Your task to perform on an android device: Set an alarm for 11am Image 0: 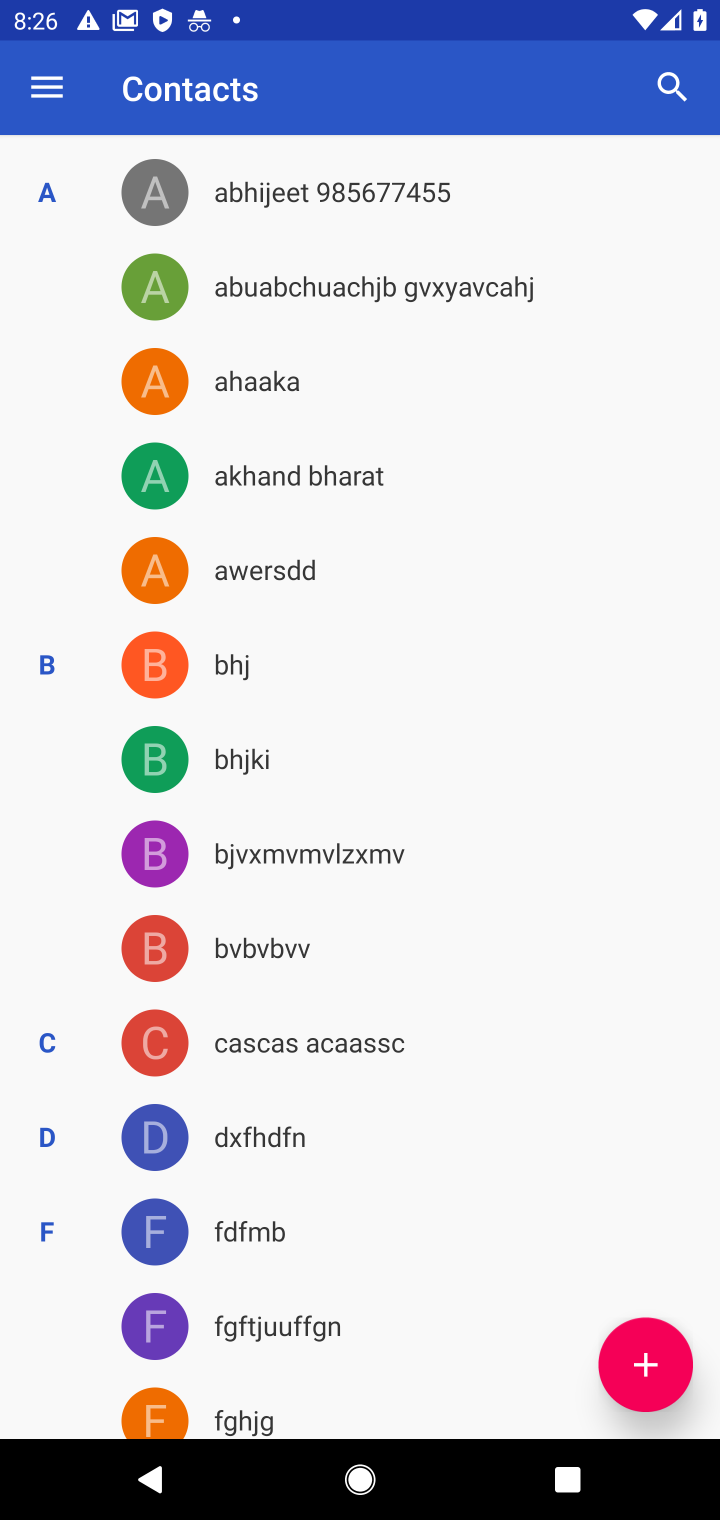
Step 0: press home button
Your task to perform on an android device: Set an alarm for 11am Image 1: 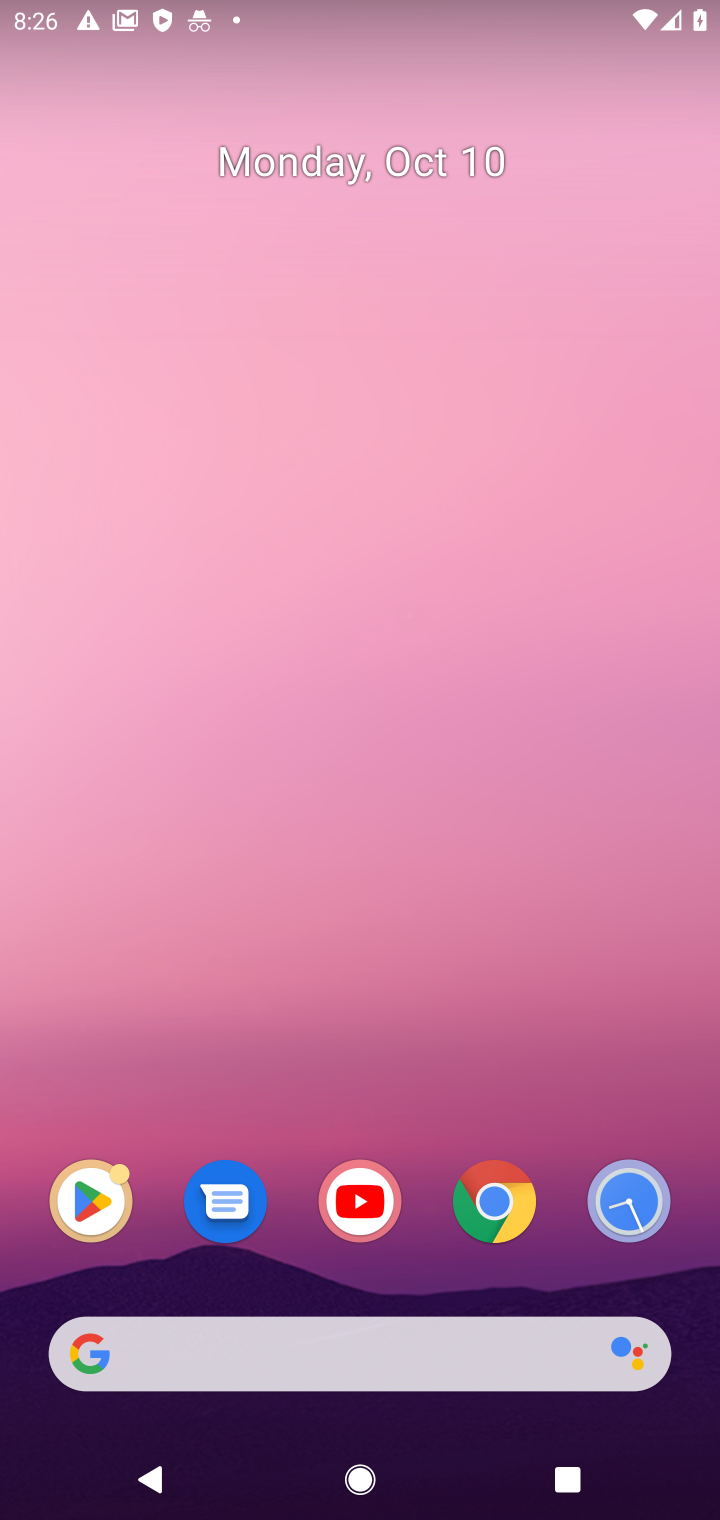
Step 1: drag from (410, 1307) to (578, 21)
Your task to perform on an android device: Set an alarm for 11am Image 2: 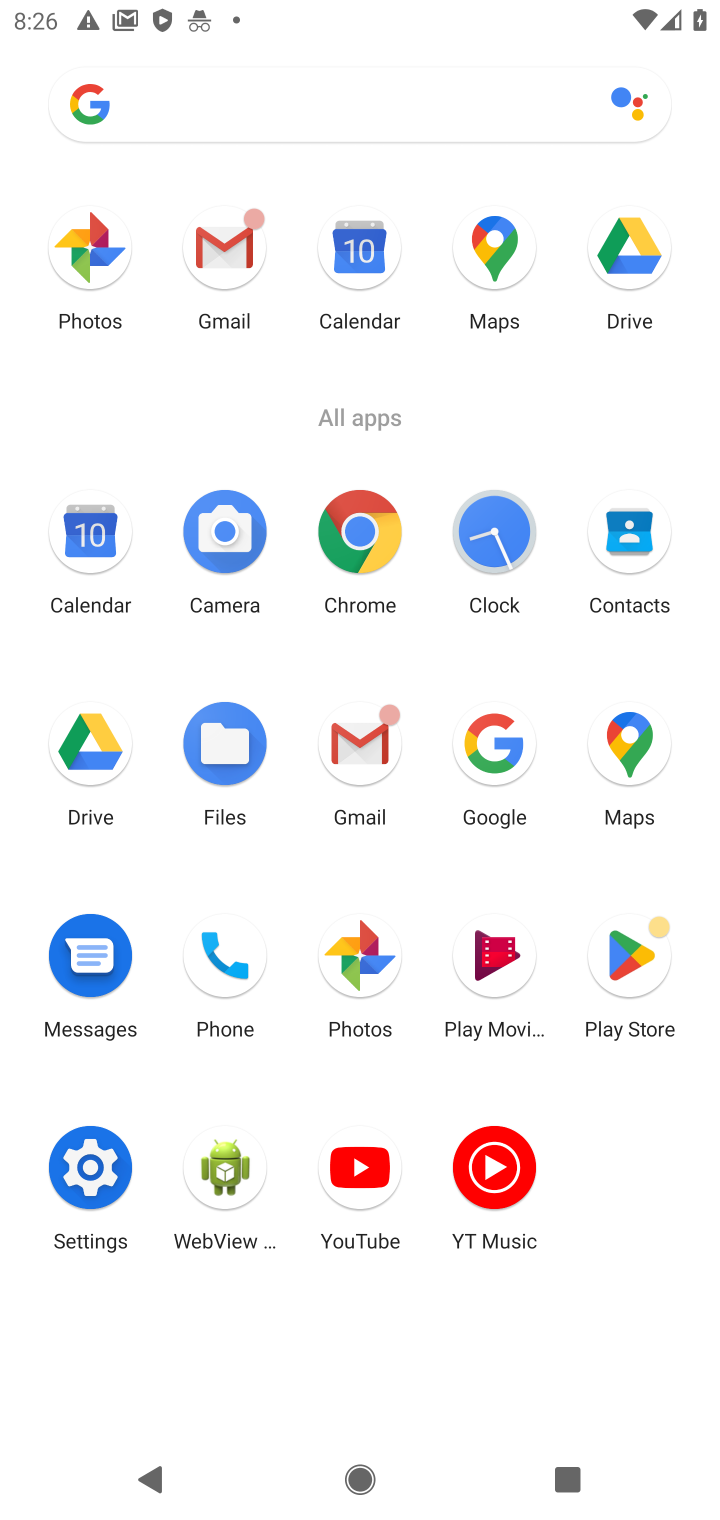
Step 2: click (491, 552)
Your task to perform on an android device: Set an alarm for 11am Image 3: 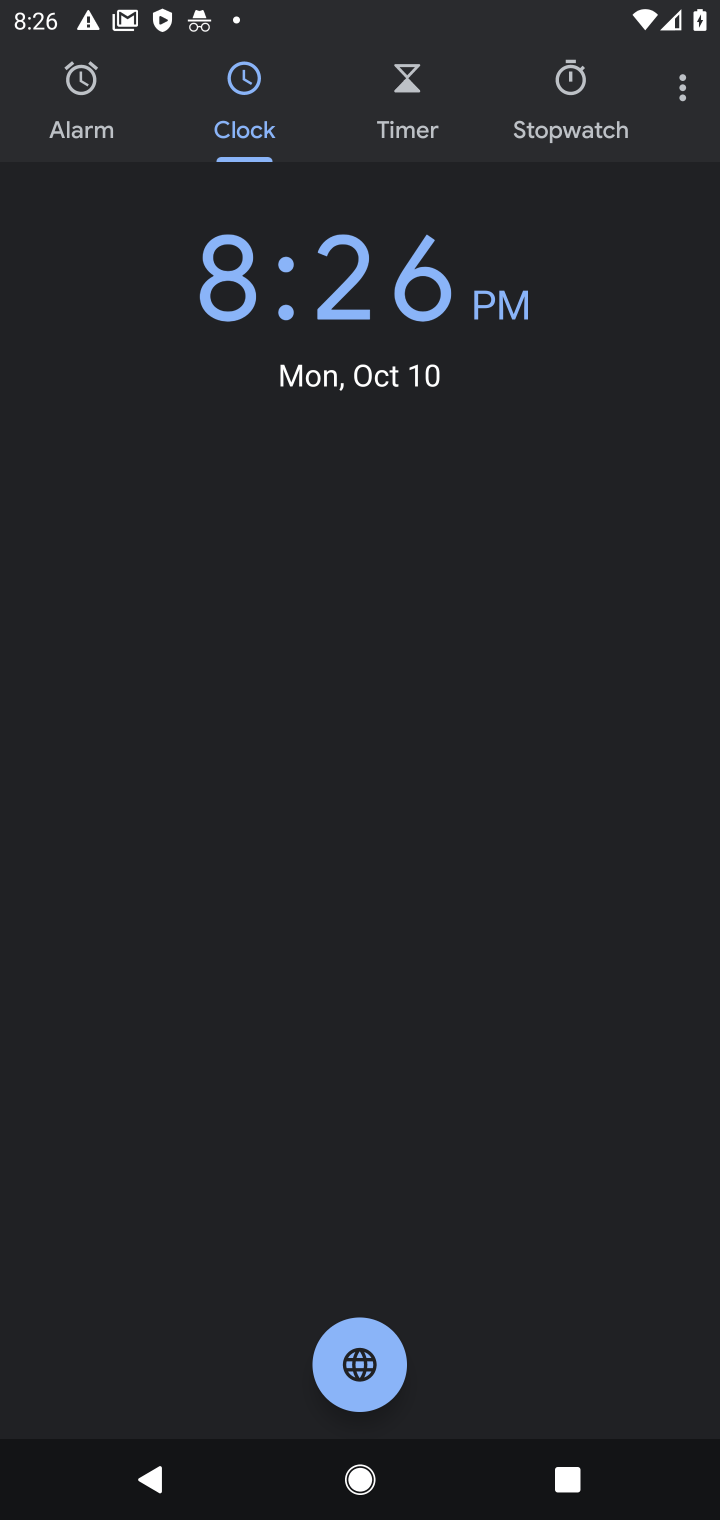
Step 3: click (95, 105)
Your task to perform on an android device: Set an alarm for 11am Image 4: 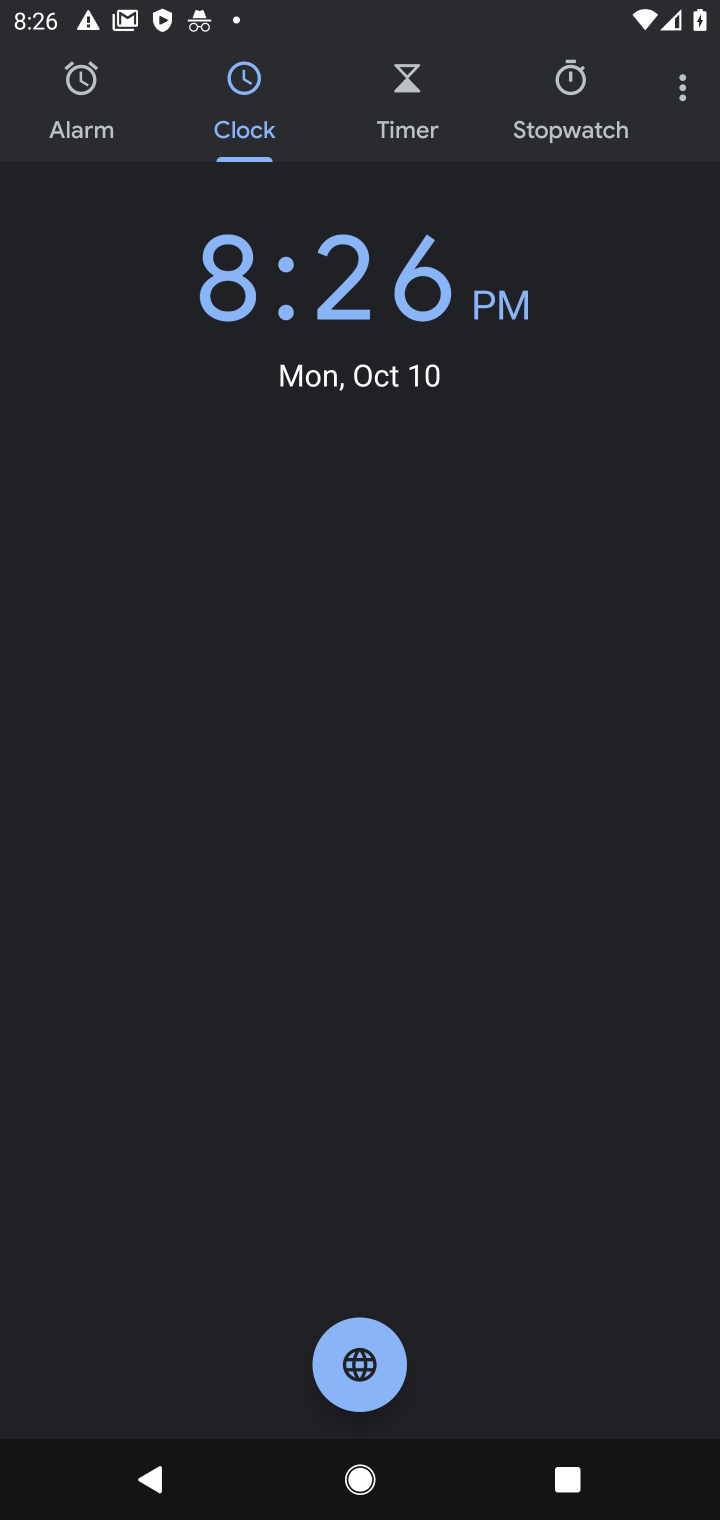
Step 4: click (91, 151)
Your task to perform on an android device: Set an alarm for 11am Image 5: 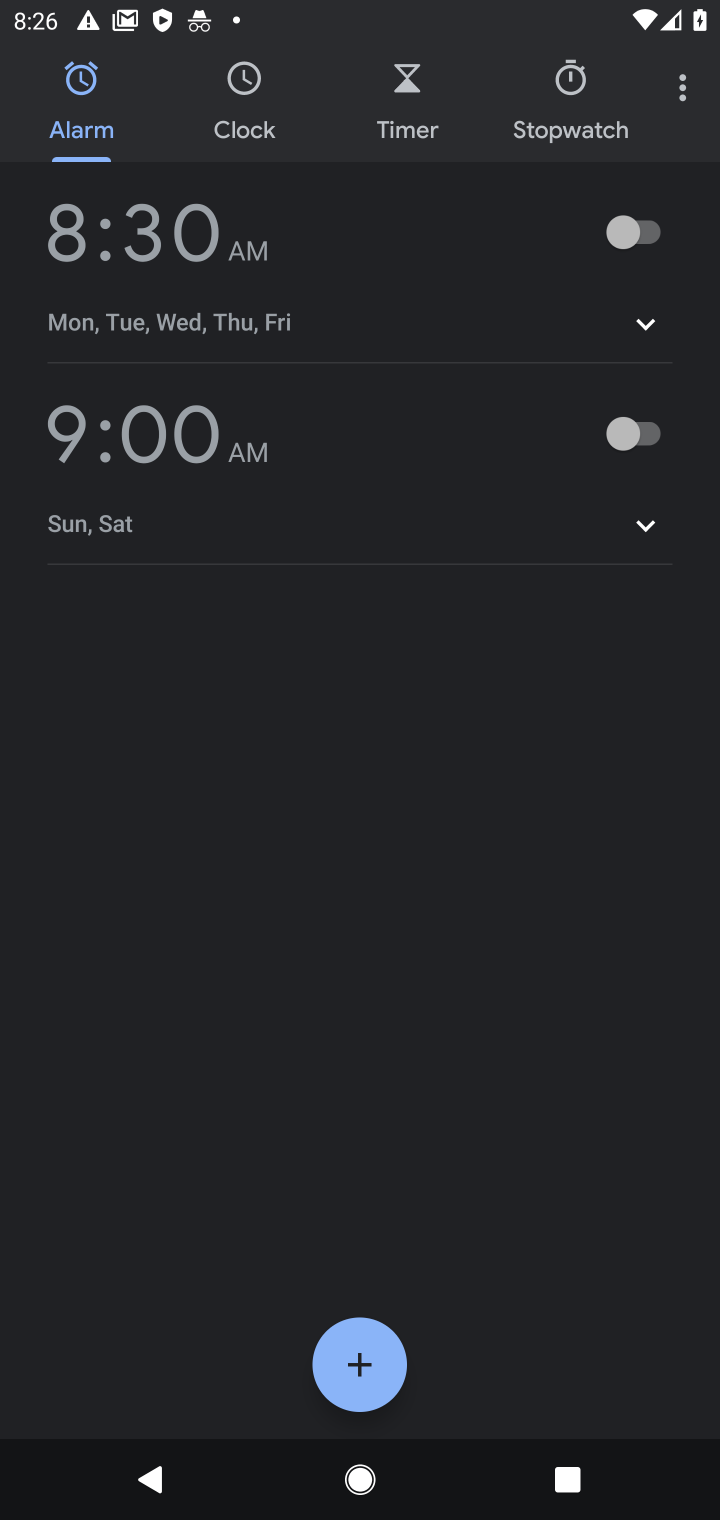
Step 5: click (365, 1345)
Your task to perform on an android device: Set an alarm for 11am Image 6: 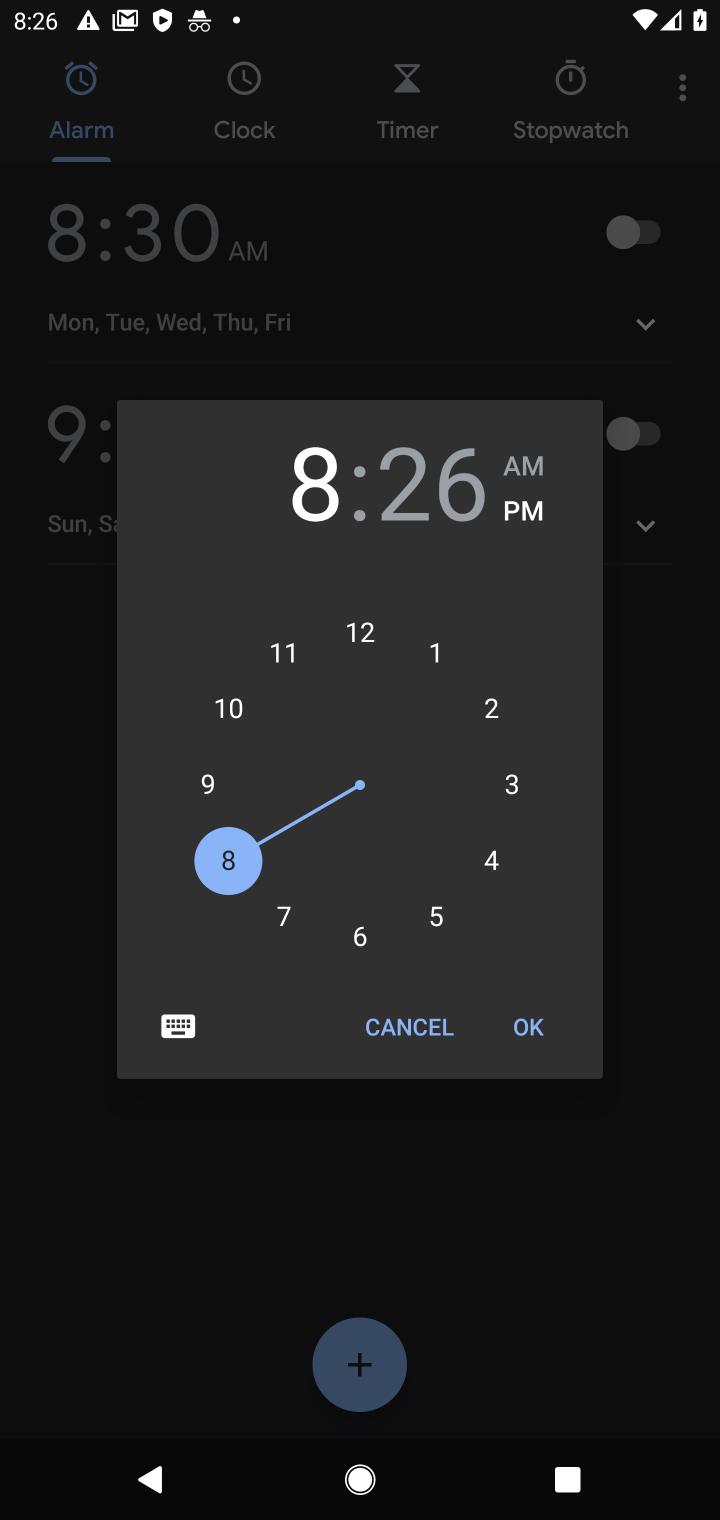
Step 6: click (518, 461)
Your task to perform on an android device: Set an alarm for 11am Image 7: 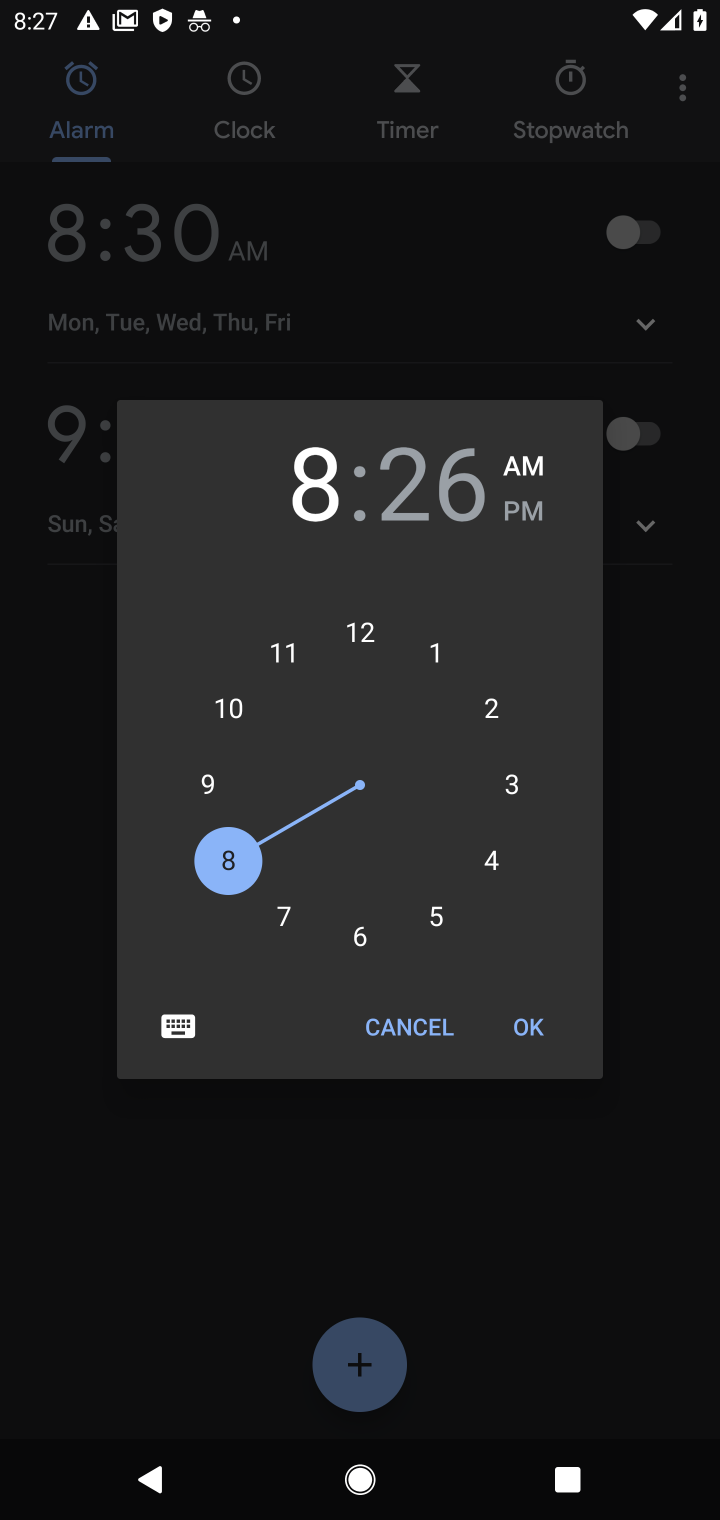
Step 7: click (285, 659)
Your task to perform on an android device: Set an alarm for 11am Image 8: 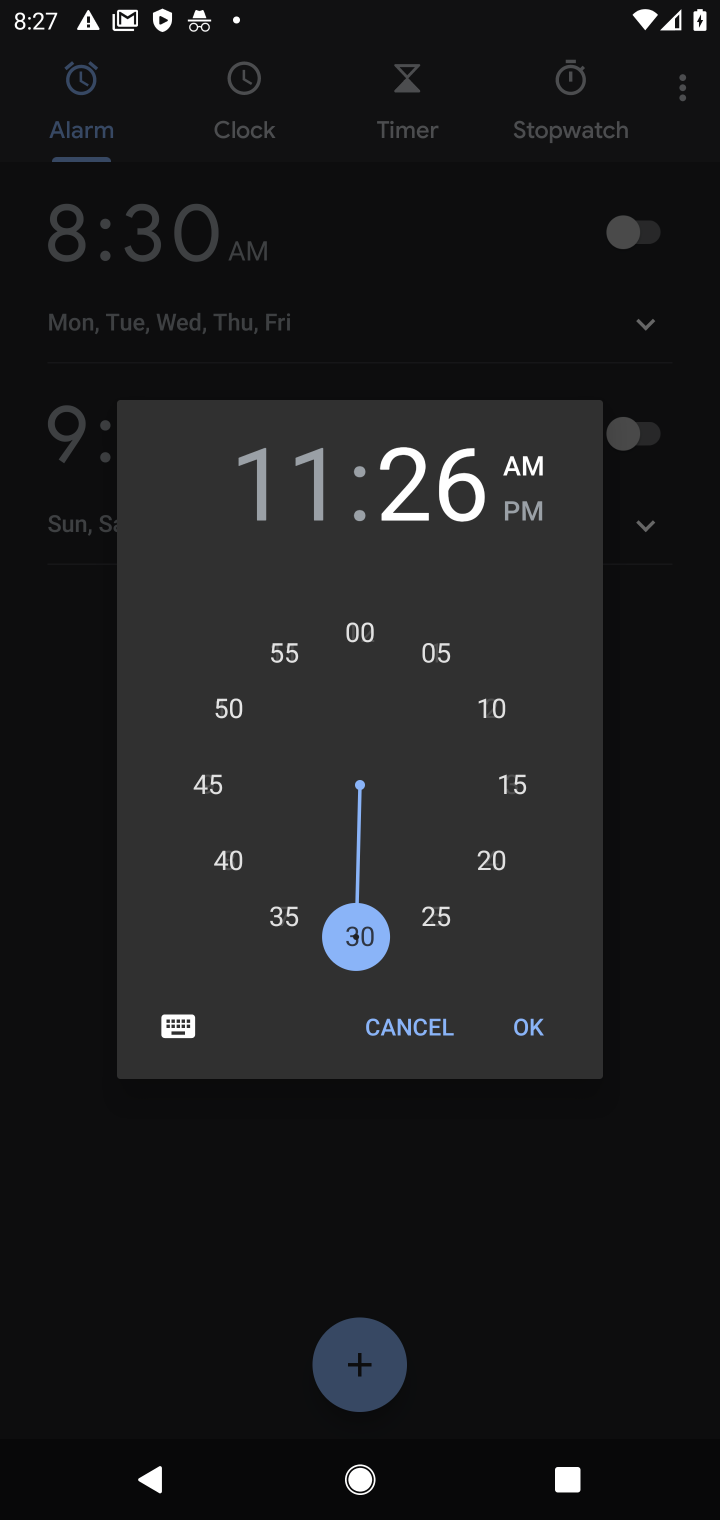
Step 8: click (420, 471)
Your task to perform on an android device: Set an alarm for 11am Image 9: 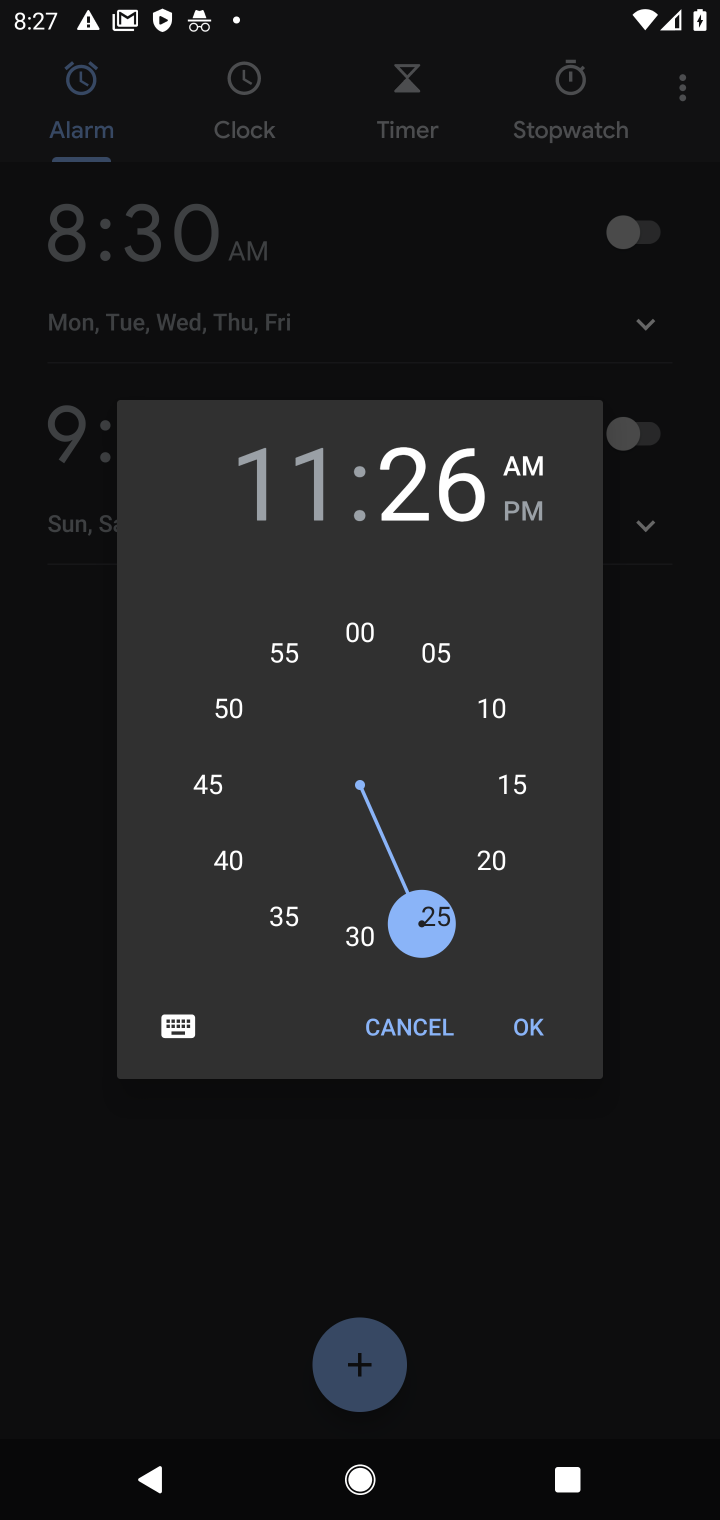
Step 9: click (350, 623)
Your task to perform on an android device: Set an alarm for 11am Image 10: 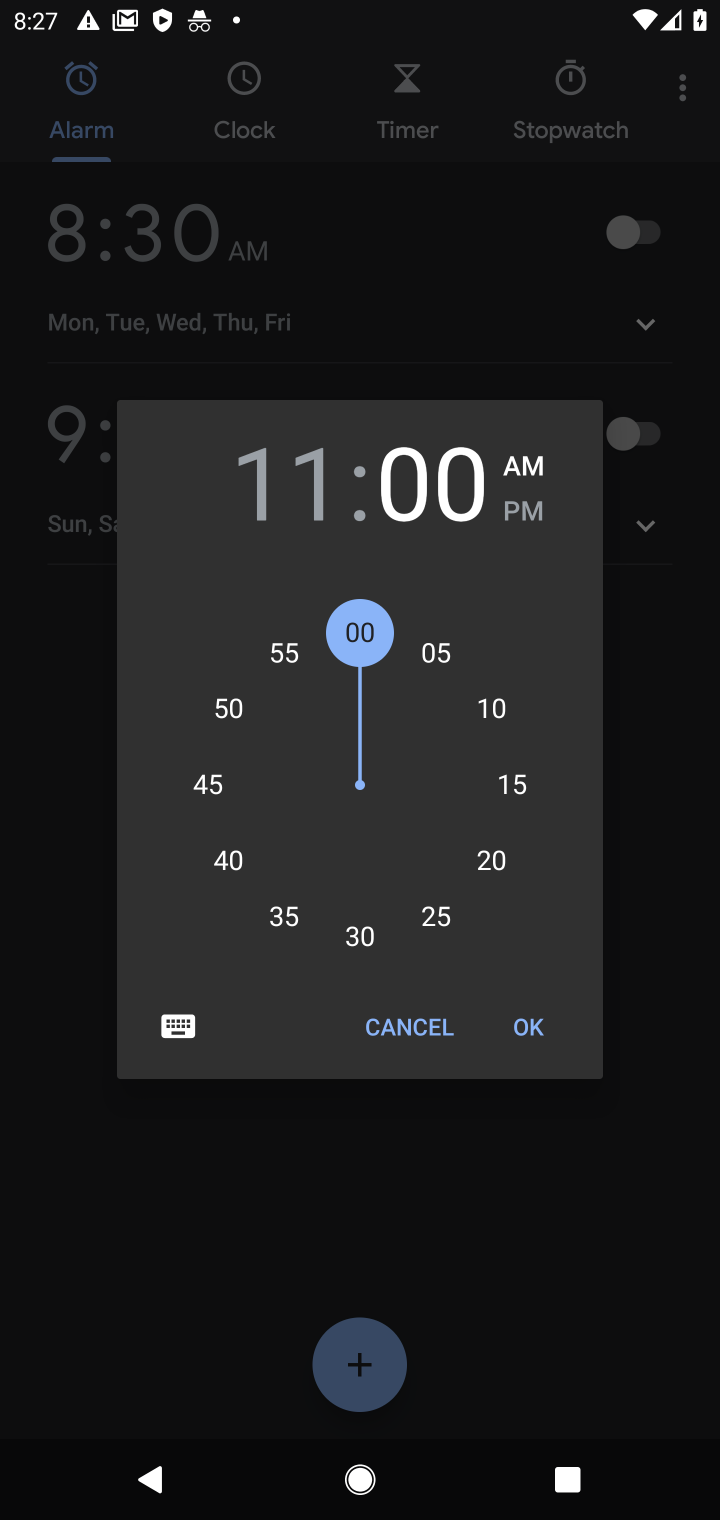
Step 10: click (532, 1013)
Your task to perform on an android device: Set an alarm for 11am Image 11: 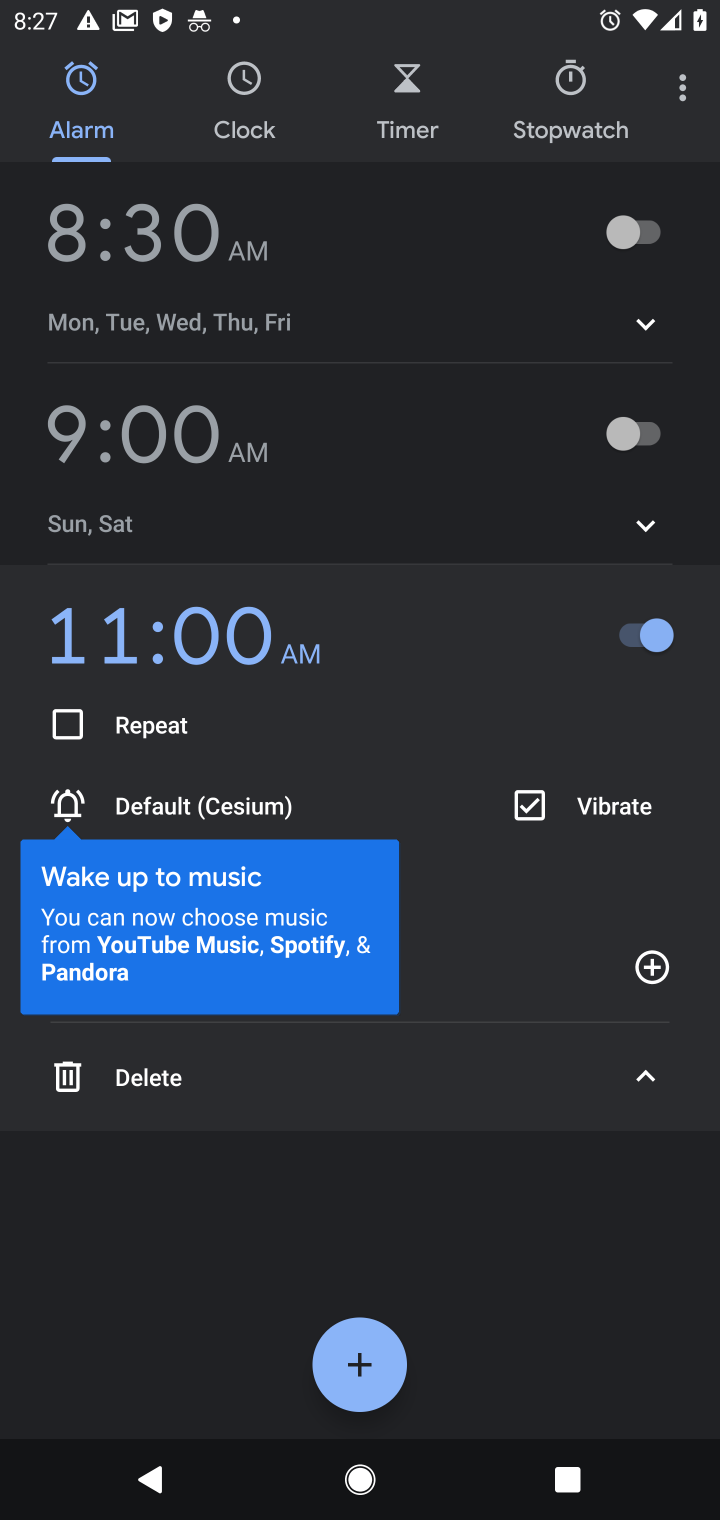
Step 11: click (528, 814)
Your task to perform on an android device: Set an alarm for 11am Image 12: 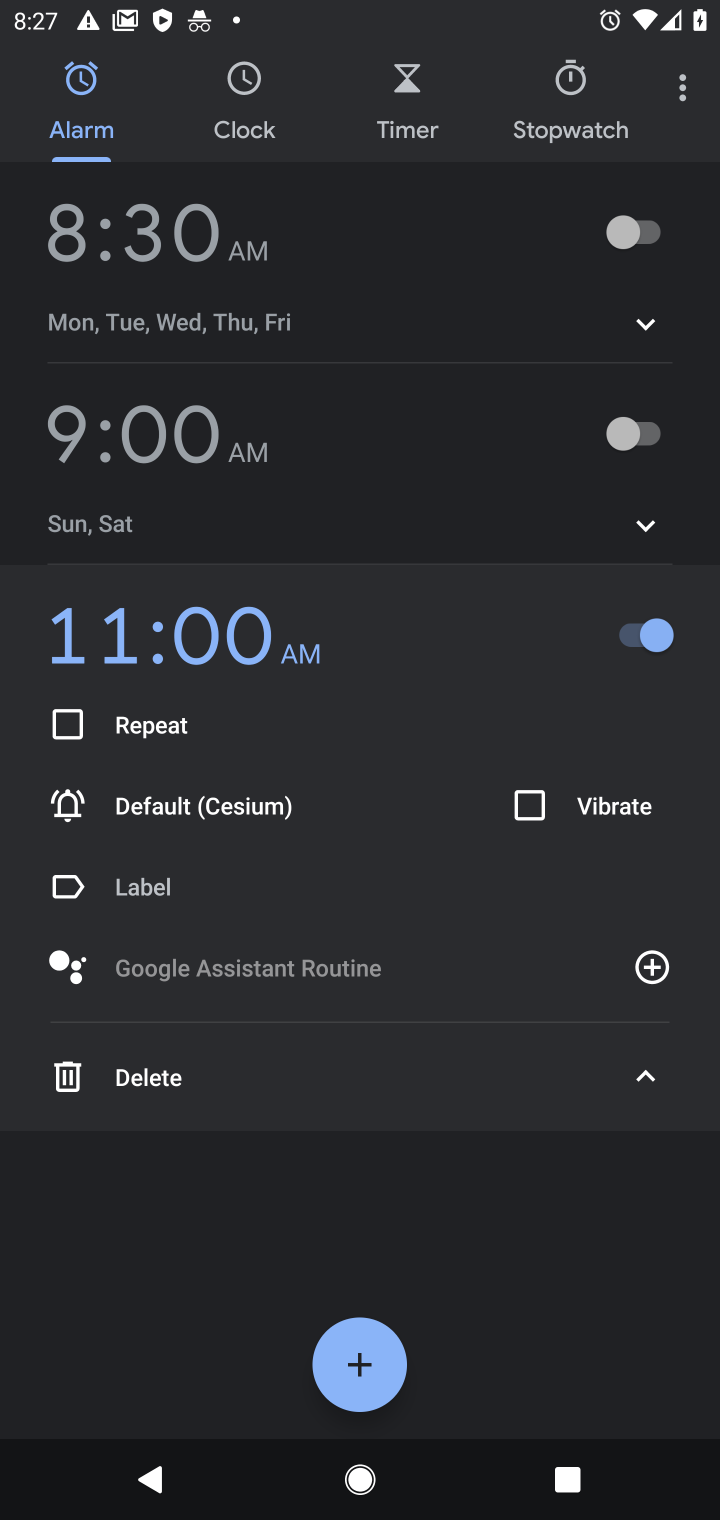
Step 12: click (528, 814)
Your task to perform on an android device: Set an alarm for 11am Image 13: 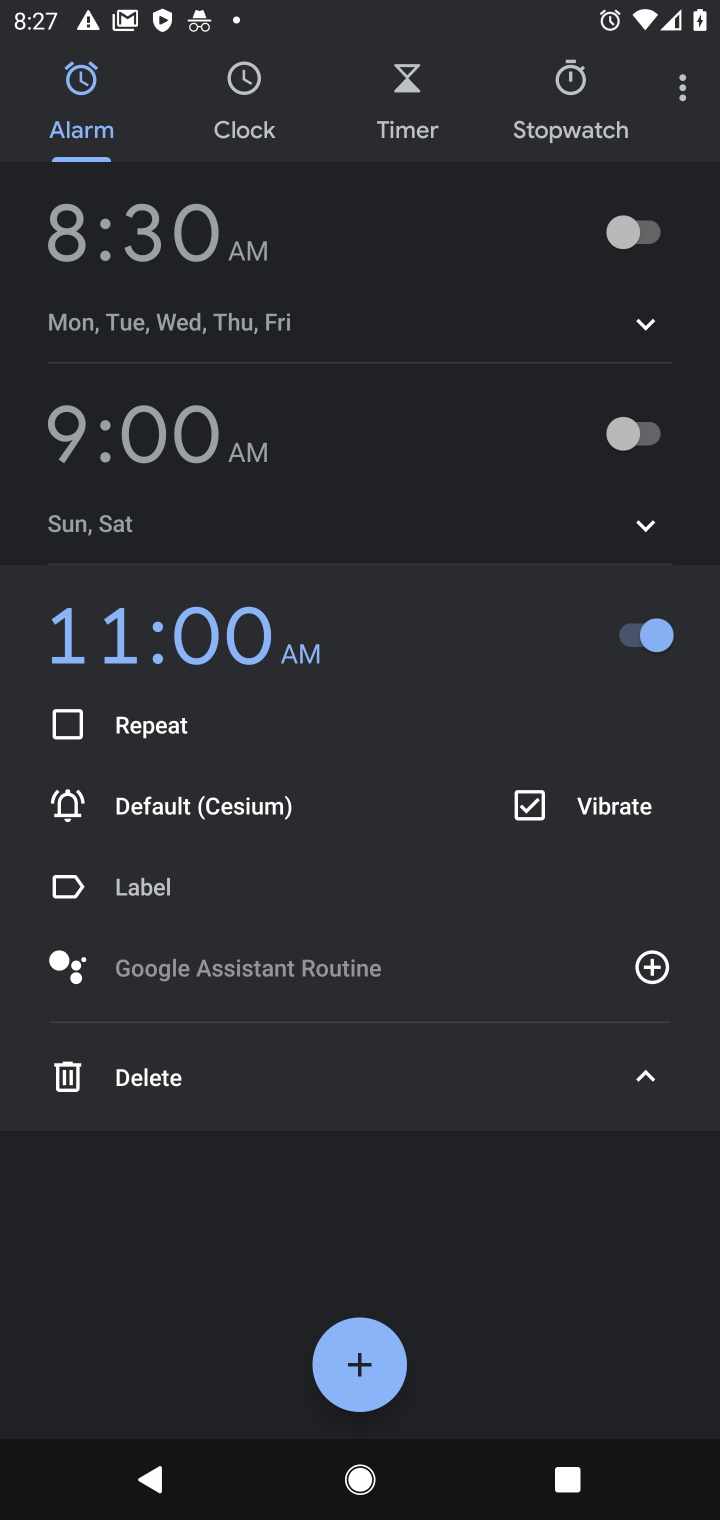
Step 13: click (141, 889)
Your task to perform on an android device: Set an alarm for 11am Image 14: 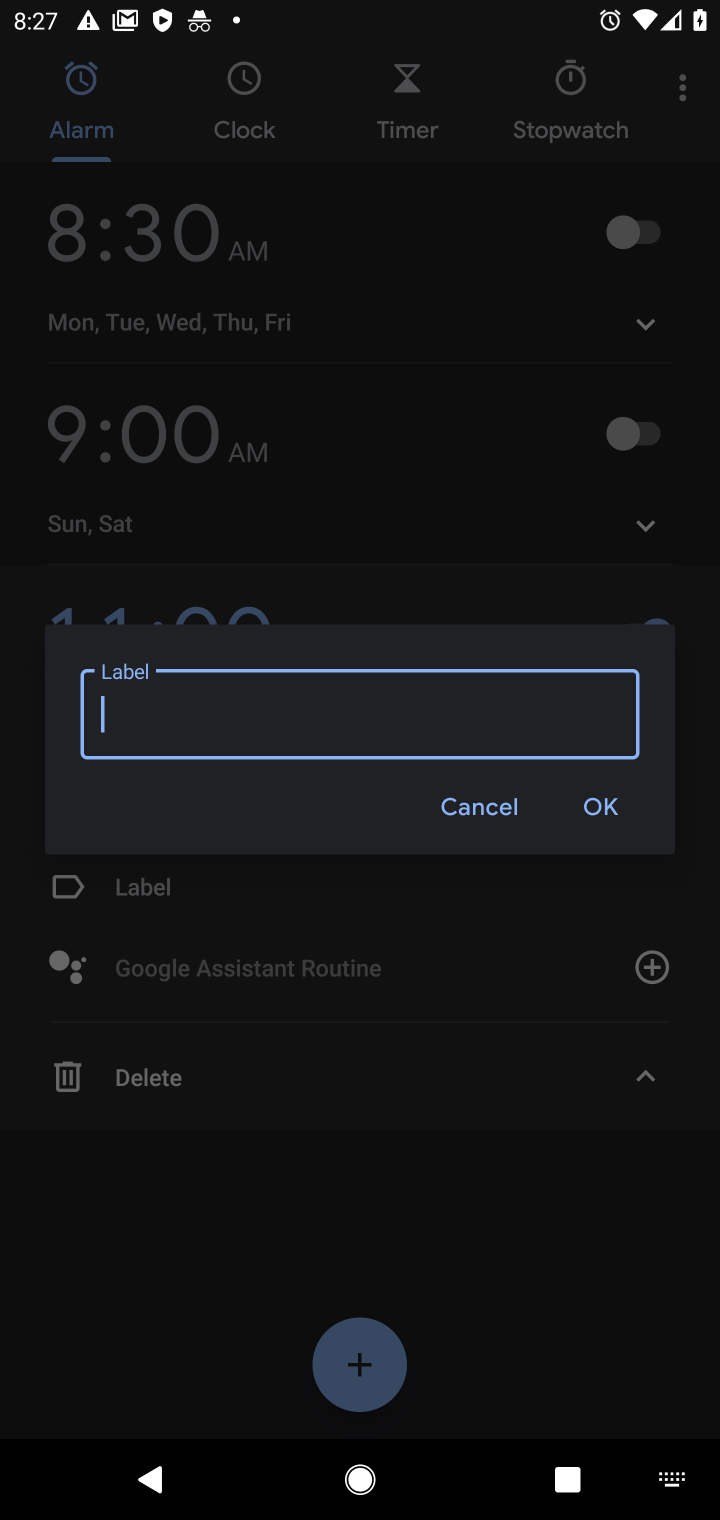
Step 14: type "Meeting"
Your task to perform on an android device: Set an alarm for 11am Image 15: 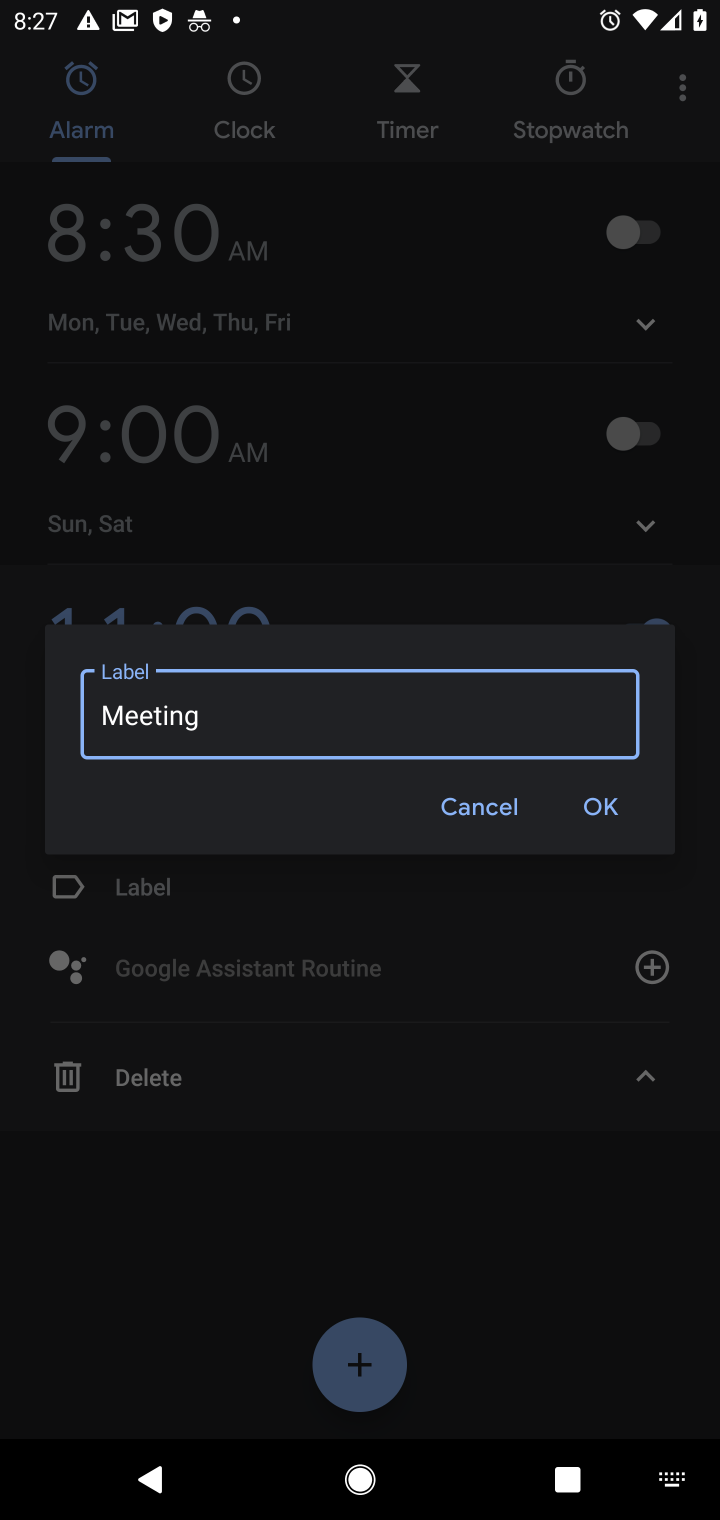
Step 15: click (574, 809)
Your task to perform on an android device: Set an alarm for 11am Image 16: 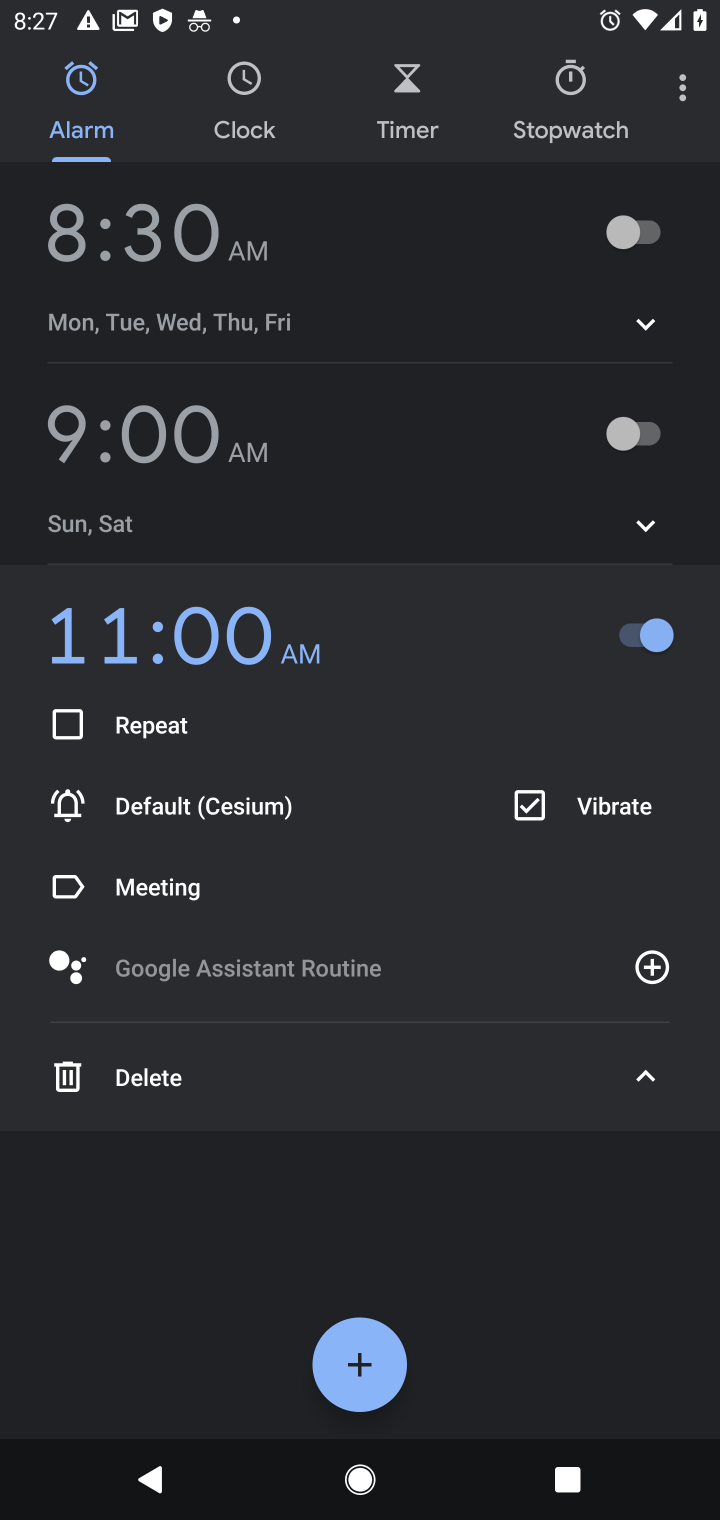
Step 16: click (506, 464)
Your task to perform on an android device: Set an alarm for 11am Image 17: 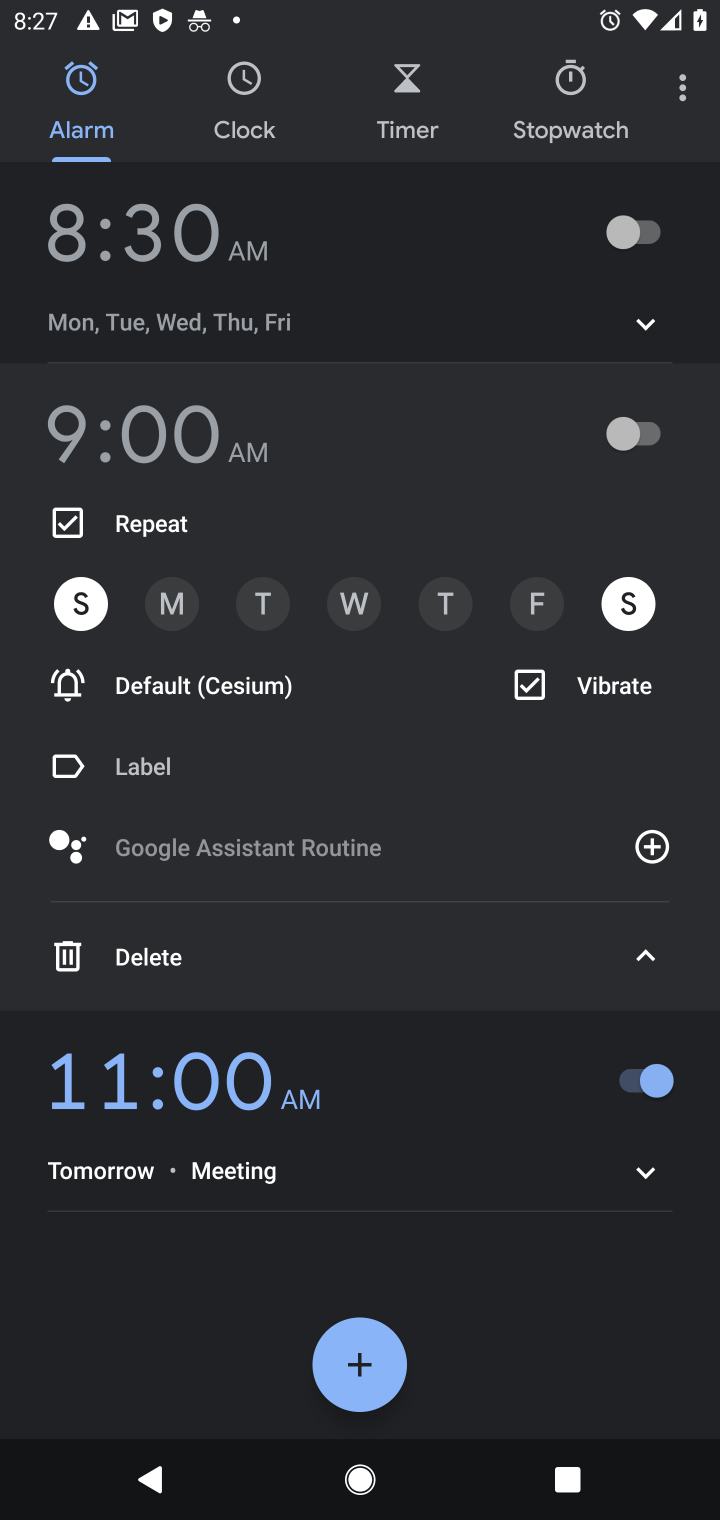
Step 17: click (277, 123)
Your task to perform on an android device: Set an alarm for 11am Image 18: 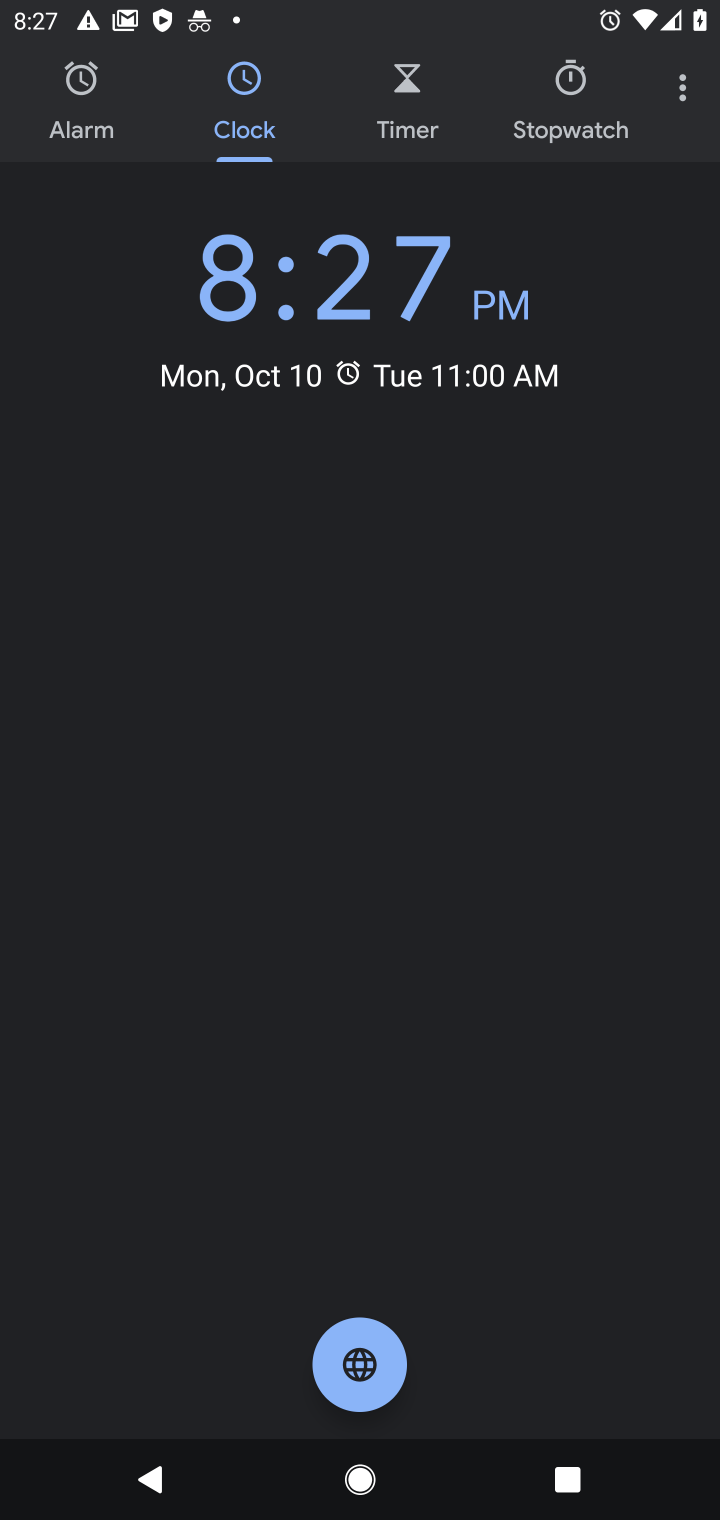
Step 18: click (442, 125)
Your task to perform on an android device: Set an alarm for 11am Image 19: 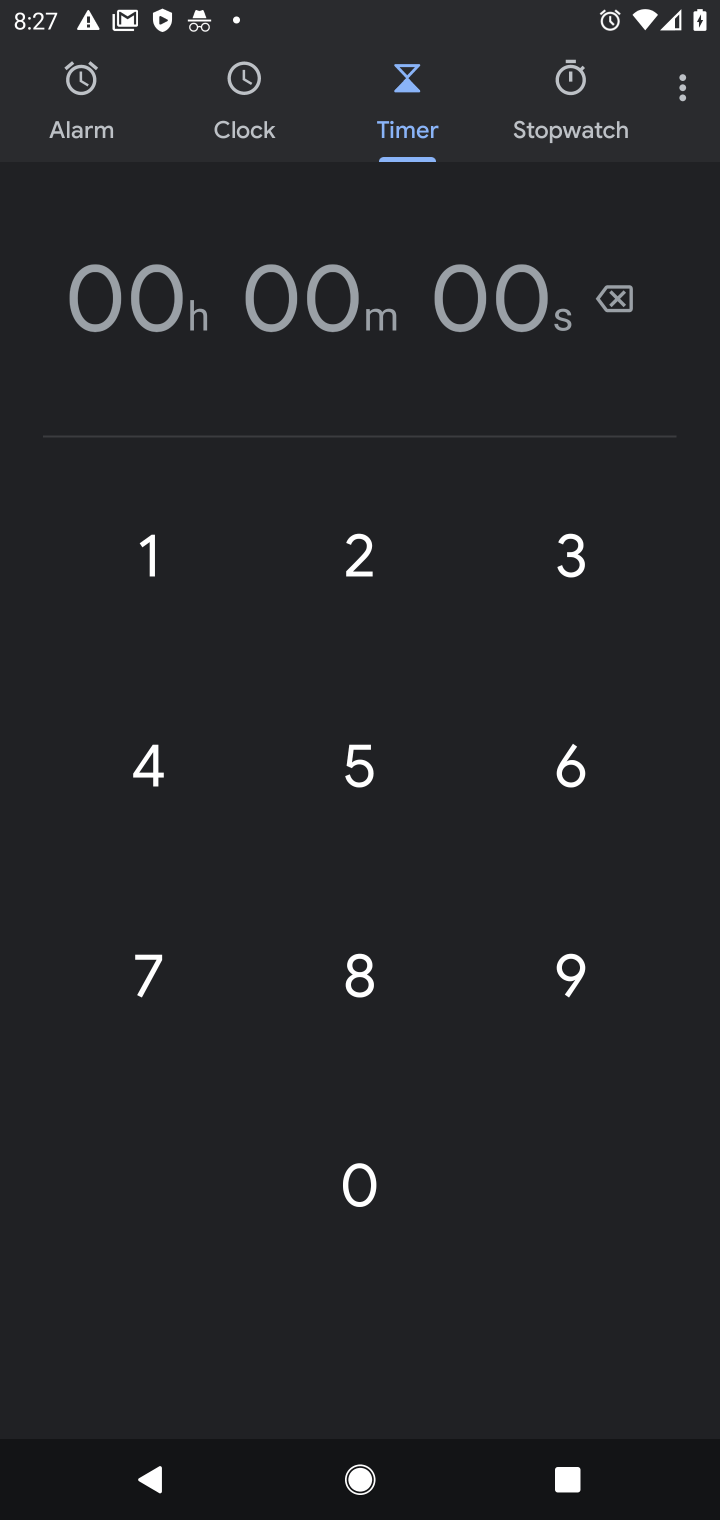
Step 19: click (604, 119)
Your task to perform on an android device: Set an alarm for 11am Image 20: 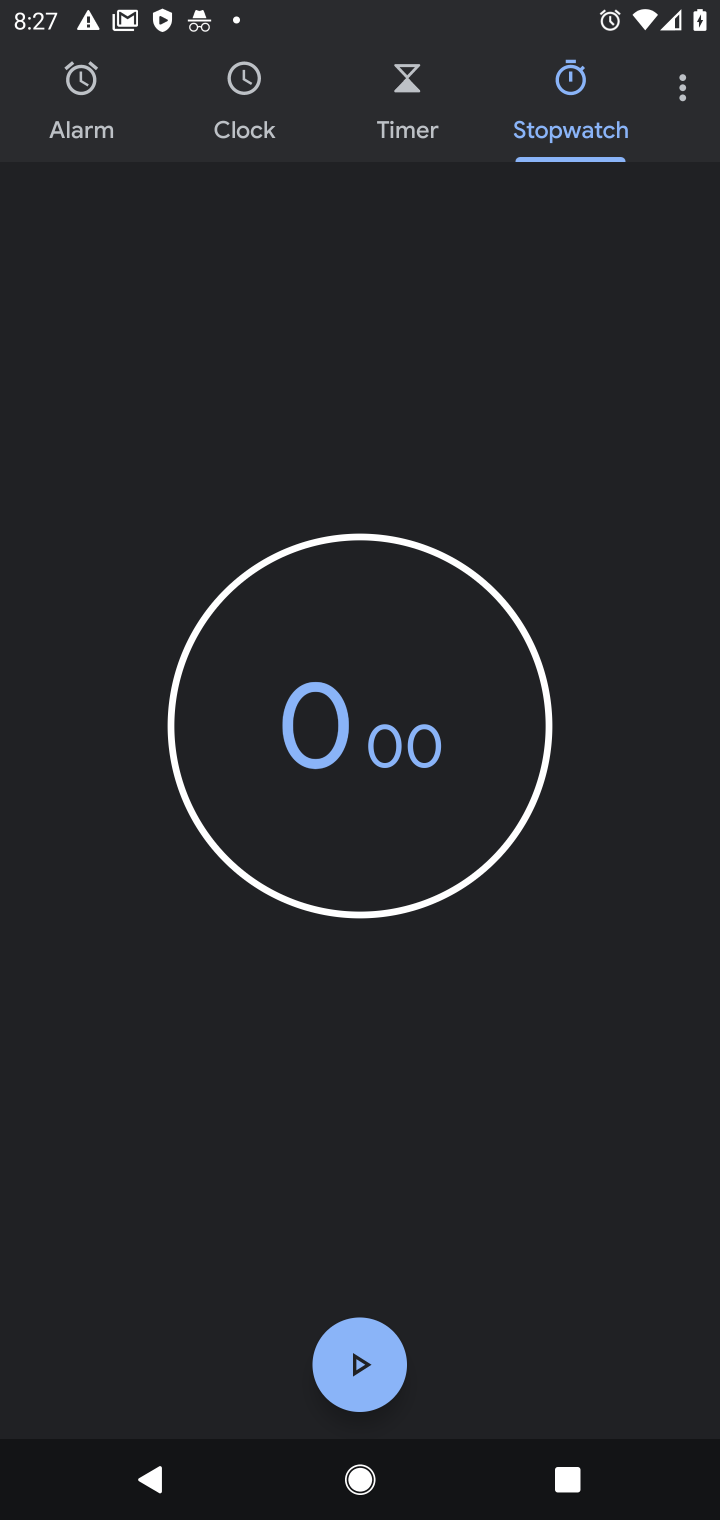
Step 20: click (339, 117)
Your task to perform on an android device: Set an alarm for 11am Image 21: 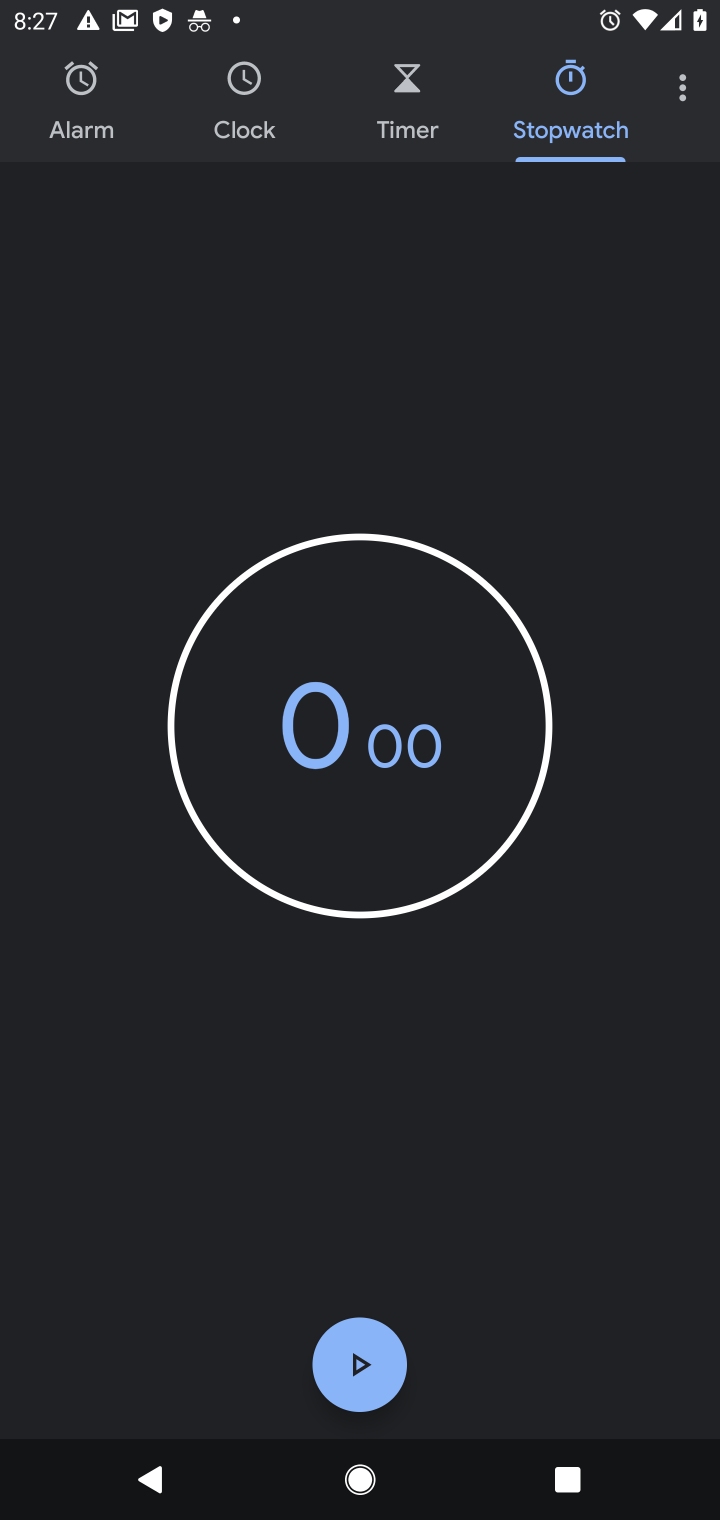
Step 21: click (216, 131)
Your task to perform on an android device: Set an alarm for 11am Image 22: 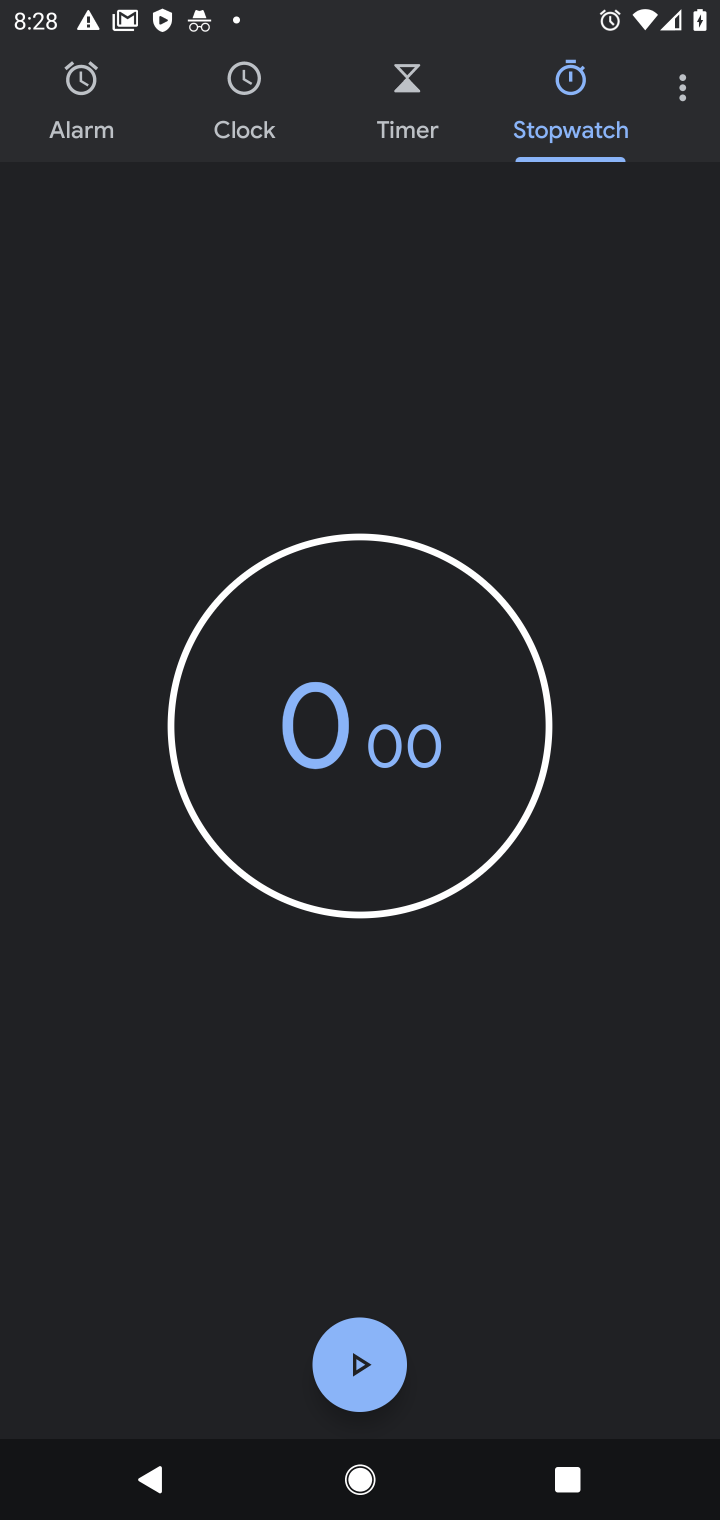
Step 22: click (242, 143)
Your task to perform on an android device: Set an alarm for 11am Image 23: 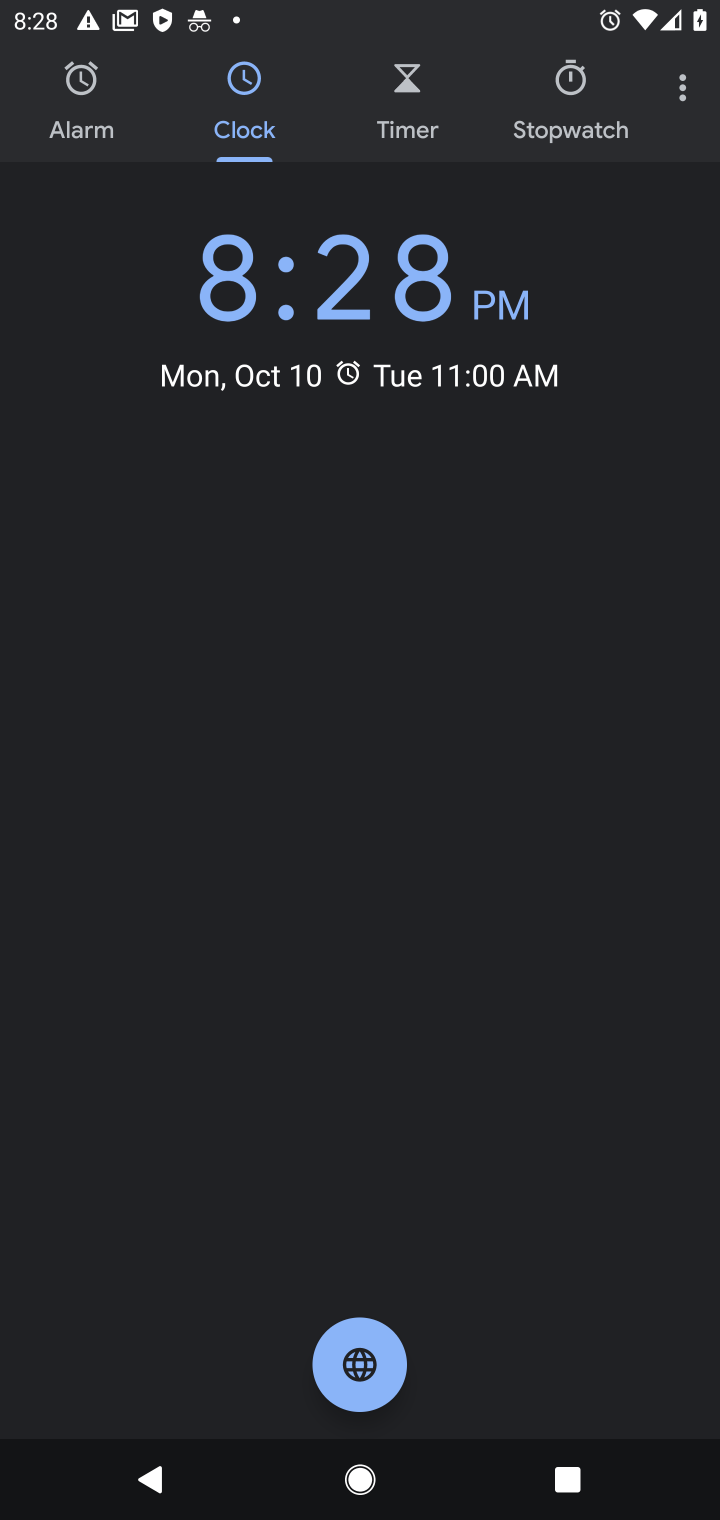
Step 23: click (356, 1358)
Your task to perform on an android device: Set an alarm for 11am Image 24: 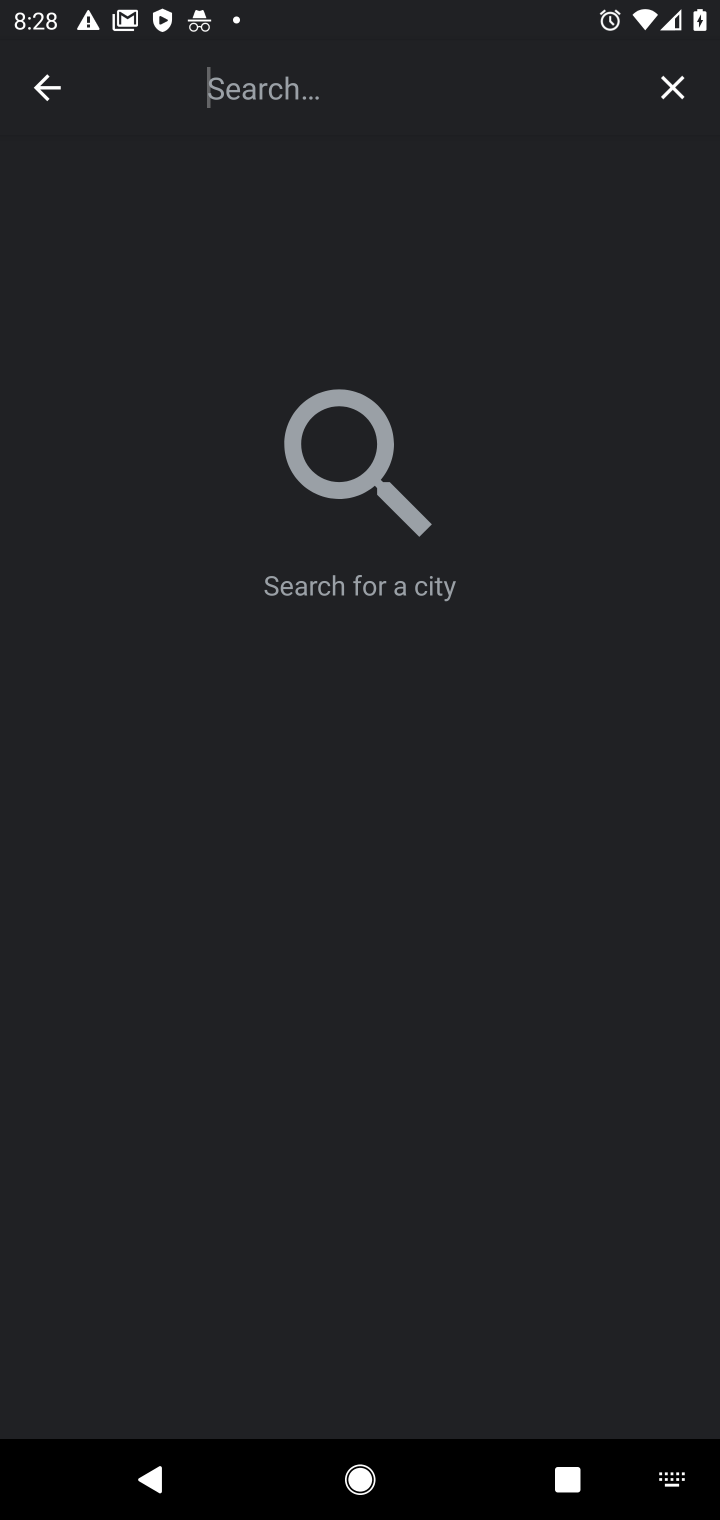
Step 24: type "california"
Your task to perform on an android device: Set an alarm for 11am Image 25: 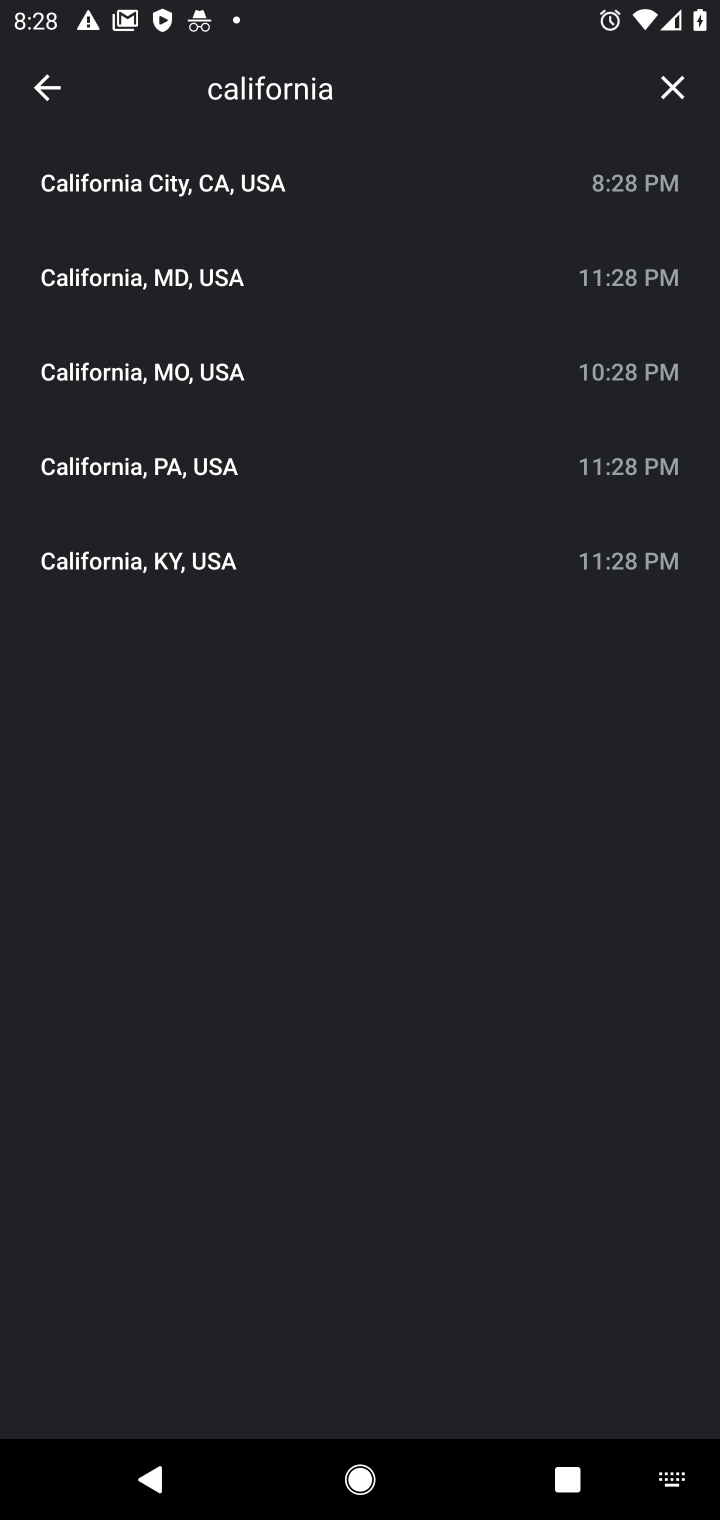
Step 25: click (344, 172)
Your task to perform on an android device: Set an alarm for 11am Image 26: 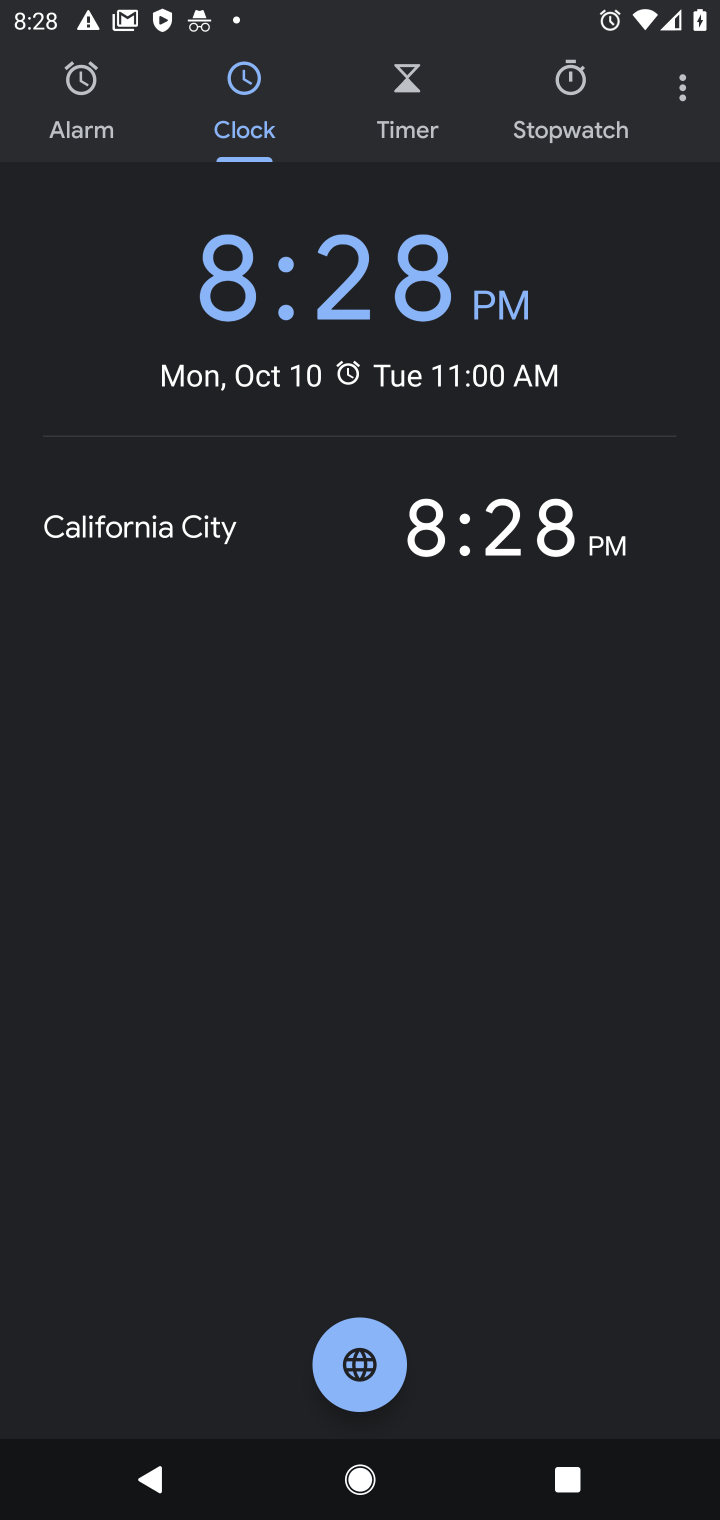
Step 26: click (413, 95)
Your task to perform on an android device: Set an alarm for 11am Image 27: 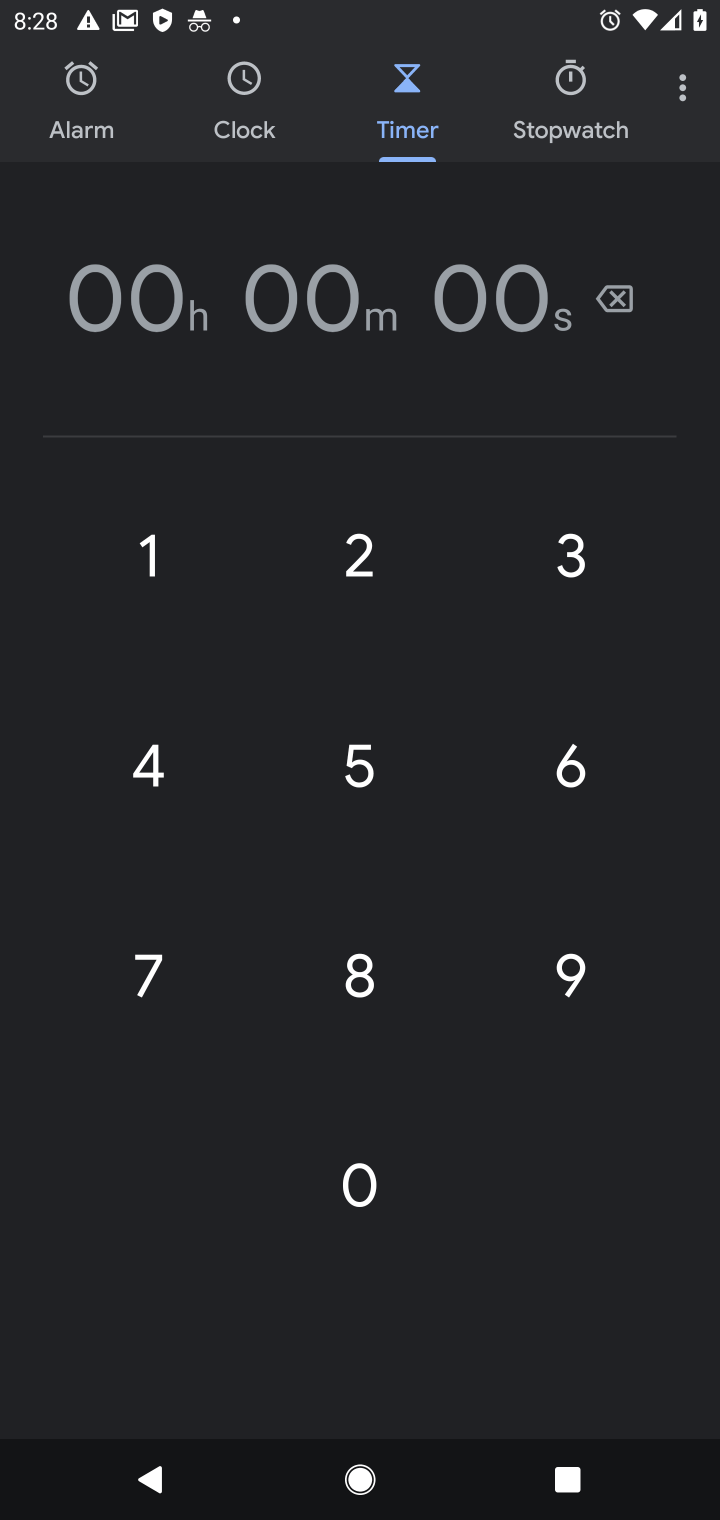
Step 27: click (596, 117)
Your task to perform on an android device: Set an alarm for 11am Image 28: 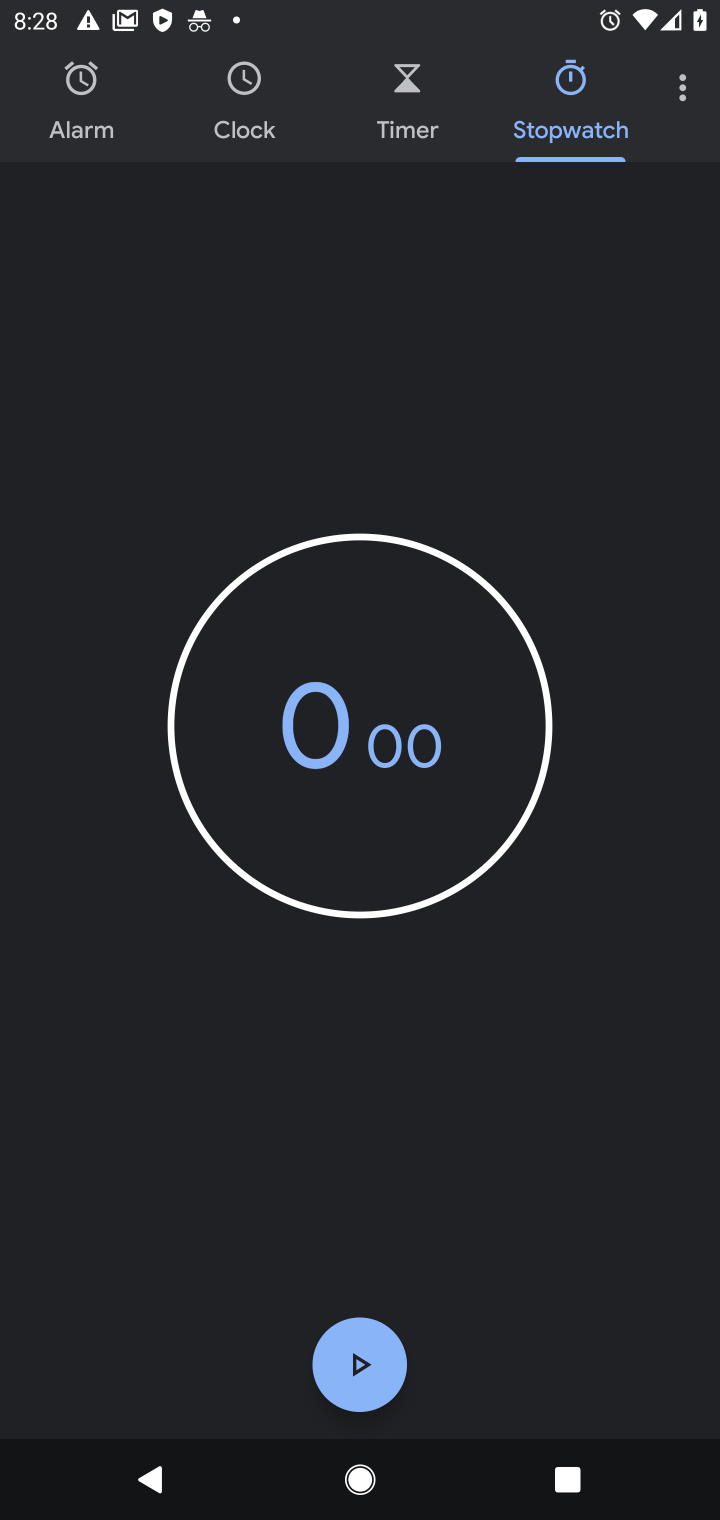
Step 28: click (114, 128)
Your task to perform on an android device: Set an alarm for 11am Image 29: 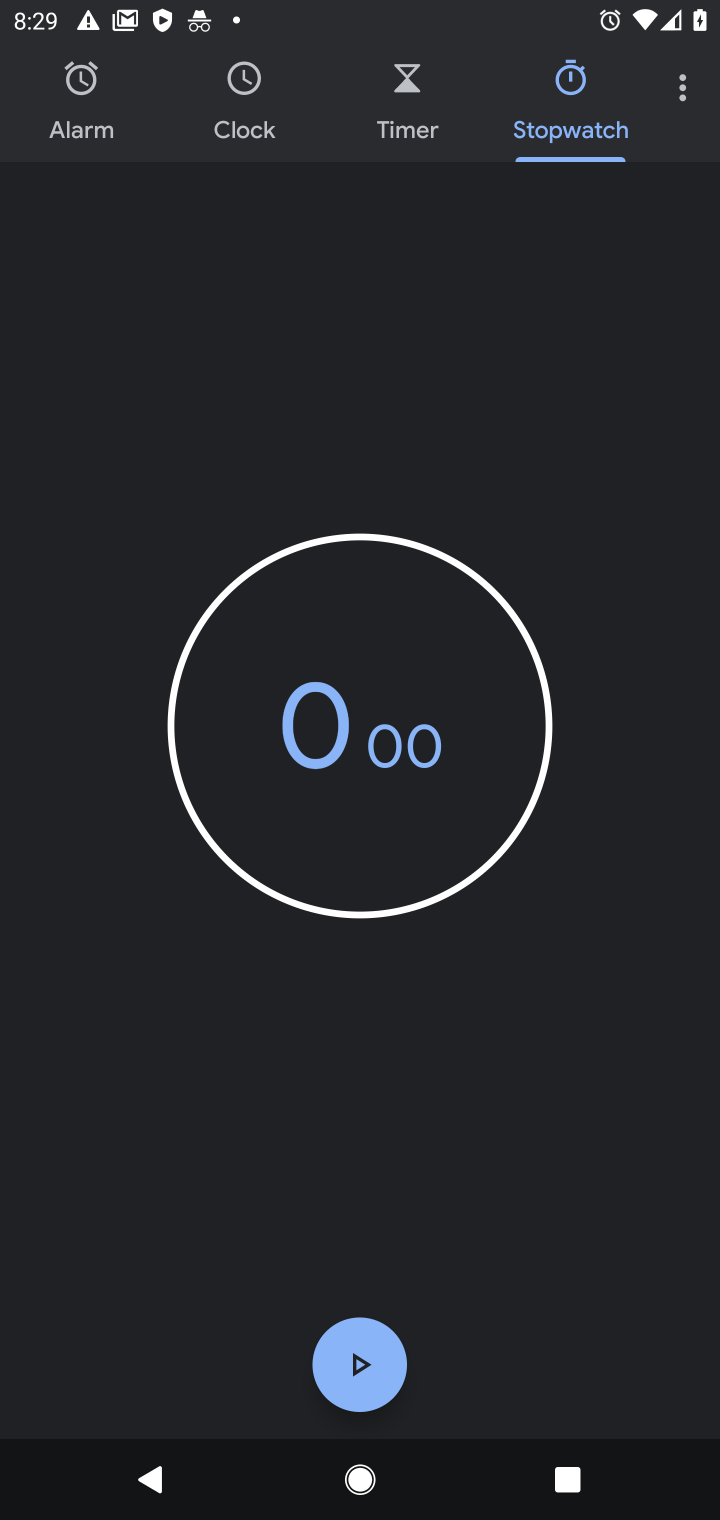
Step 29: click (317, 1236)
Your task to perform on an android device: Set an alarm for 11am Image 30: 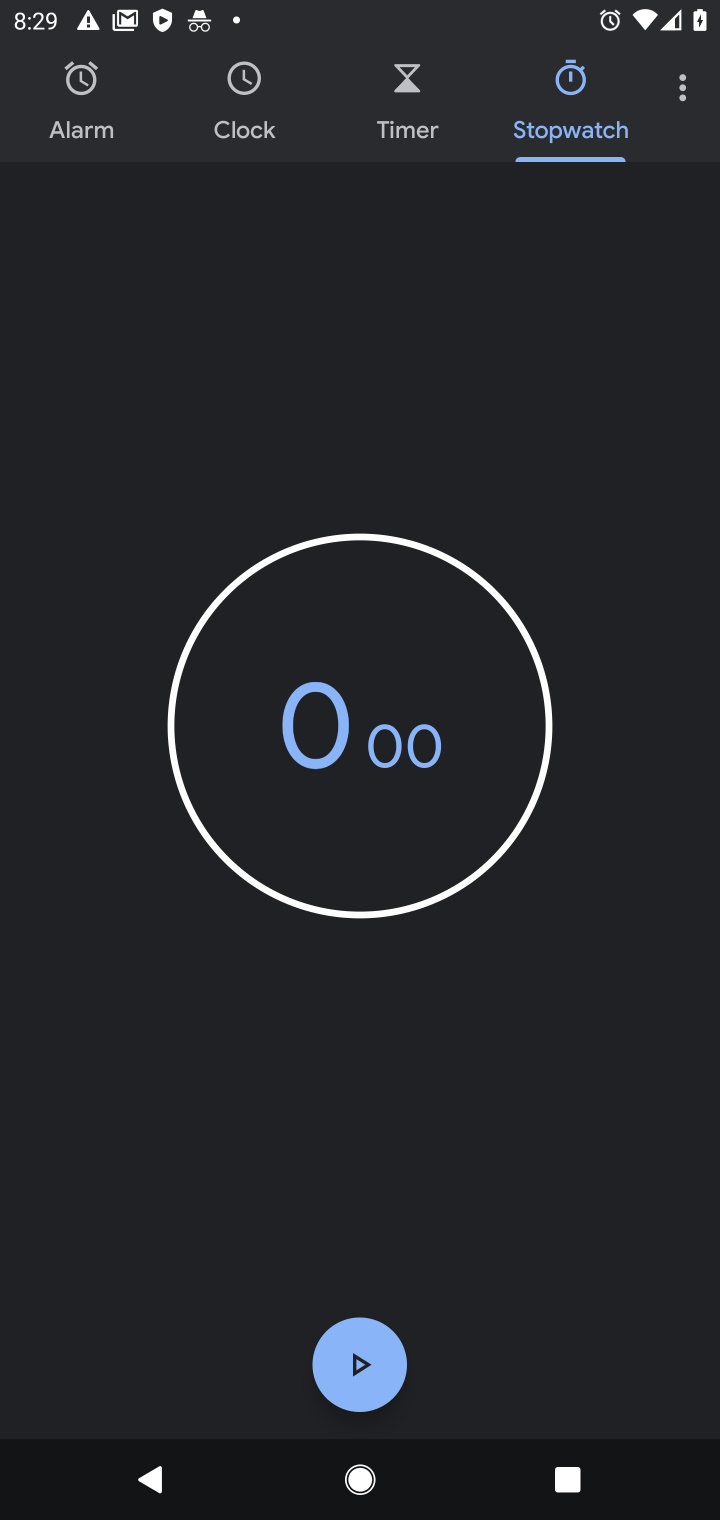
Step 30: task complete